Your task to perform on an android device: create a new album in the google photos Image 0: 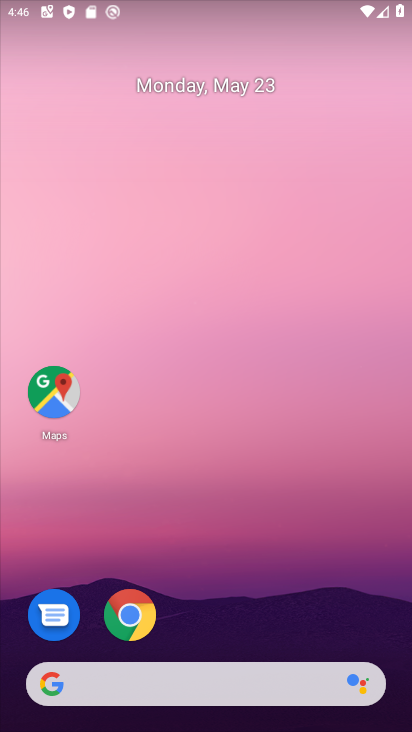
Step 0: drag from (251, 610) to (224, 140)
Your task to perform on an android device: create a new album in the google photos Image 1: 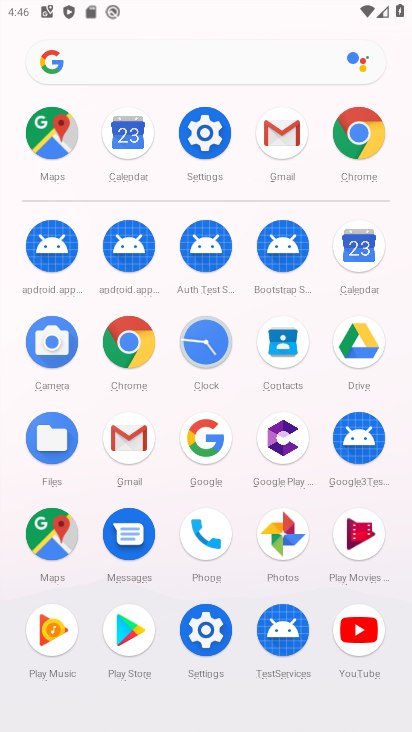
Step 1: click (285, 526)
Your task to perform on an android device: create a new album in the google photos Image 2: 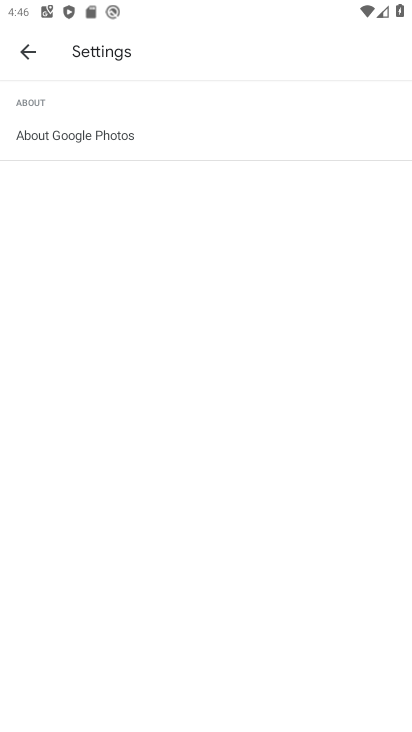
Step 2: click (22, 46)
Your task to perform on an android device: create a new album in the google photos Image 3: 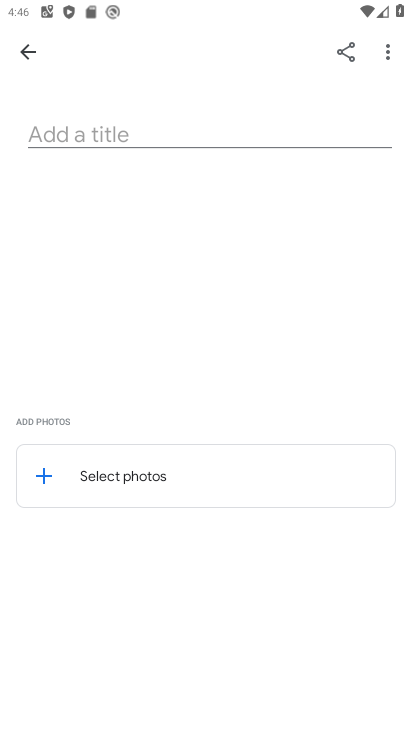
Step 3: click (38, 41)
Your task to perform on an android device: create a new album in the google photos Image 4: 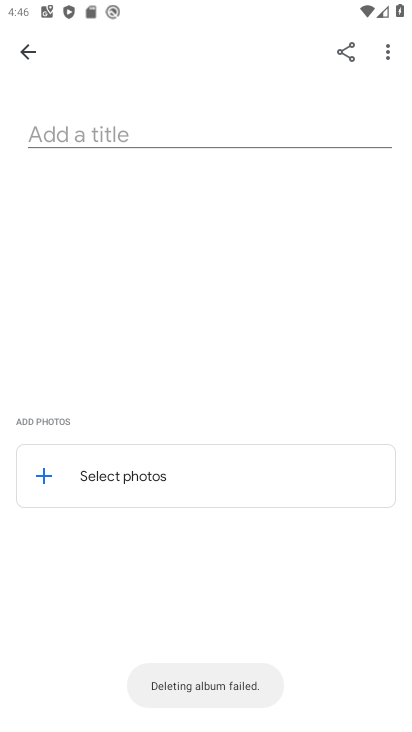
Step 4: click (76, 138)
Your task to perform on an android device: create a new album in the google photos Image 5: 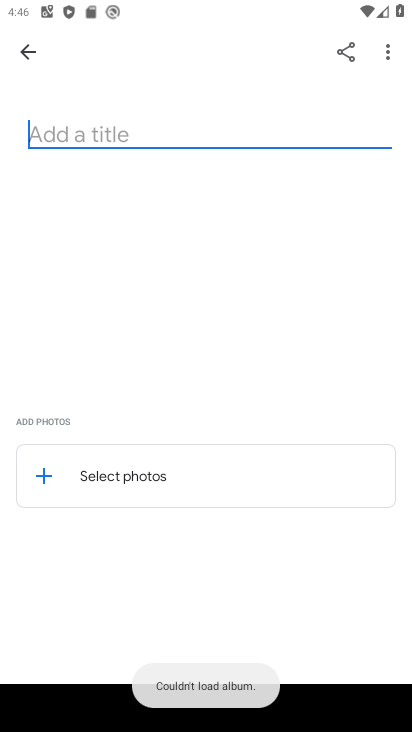
Step 5: type "vfbg"
Your task to perform on an android device: create a new album in the google photos Image 6: 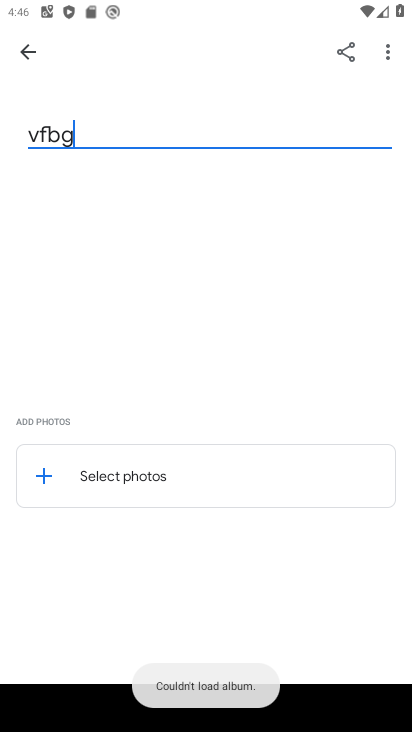
Step 6: click (105, 477)
Your task to perform on an android device: create a new album in the google photos Image 7: 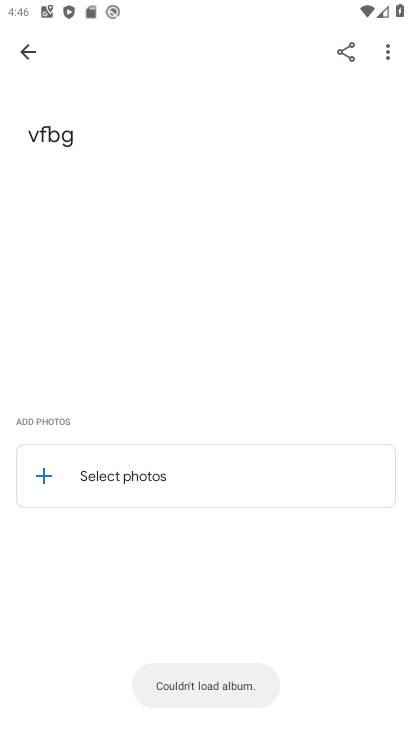
Step 7: click (107, 471)
Your task to perform on an android device: create a new album in the google photos Image 8: 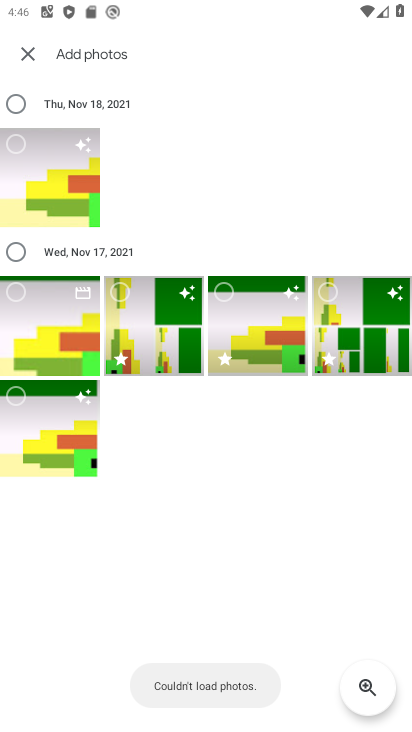
Step 8: click (18, 101)
Your task to perform on an android device: create a new album in the google photos Image 9: 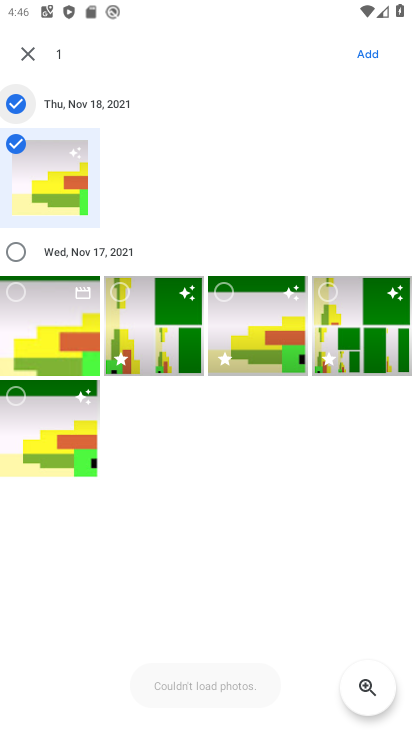
Step 9: click (10, 250)
Your task to perform on an android device: create a new album in the google photos Image 10: 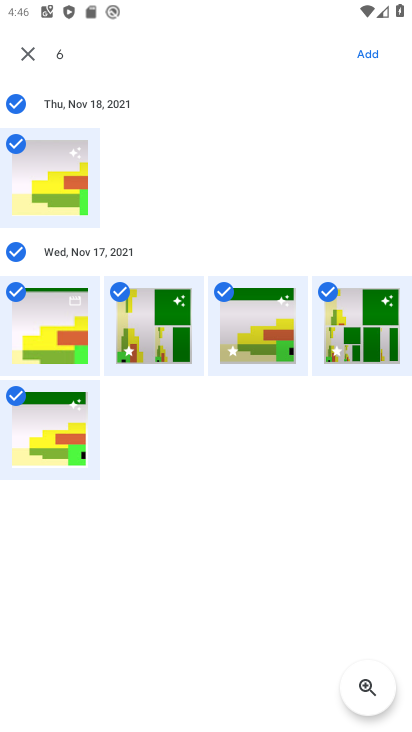
Step 10: click (367, 55)
Your task to perform on an android device: create a new album in the google photos Image 11: 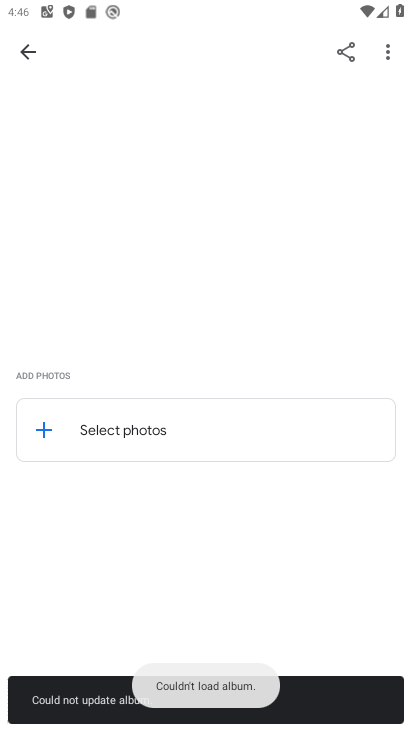
Step 11: task complete